Your task to perform on an android device: Check my email Image 0: 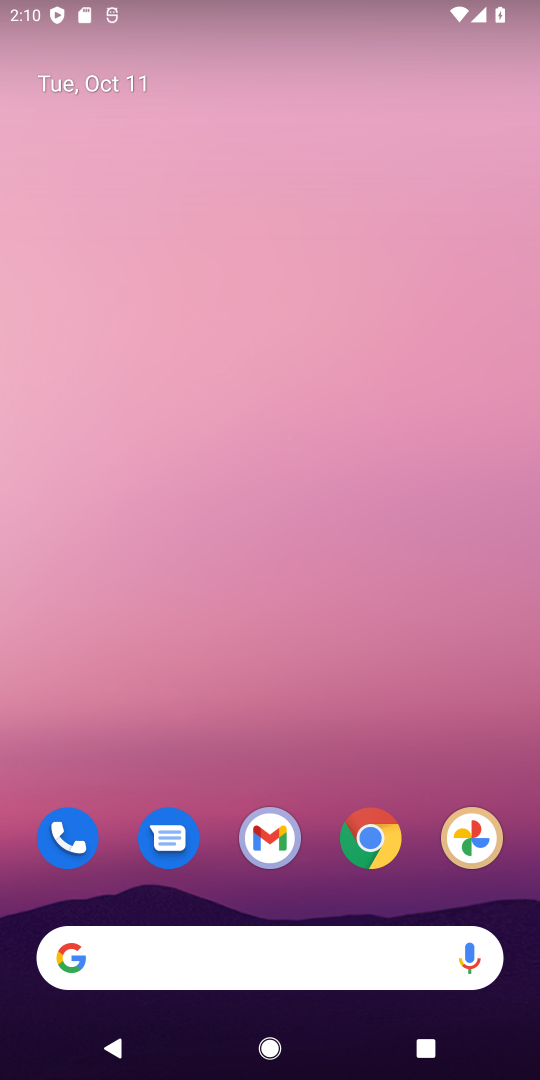
Step 0: click (269, 844)
Your task to perform on an android device: Check my email Image 1: 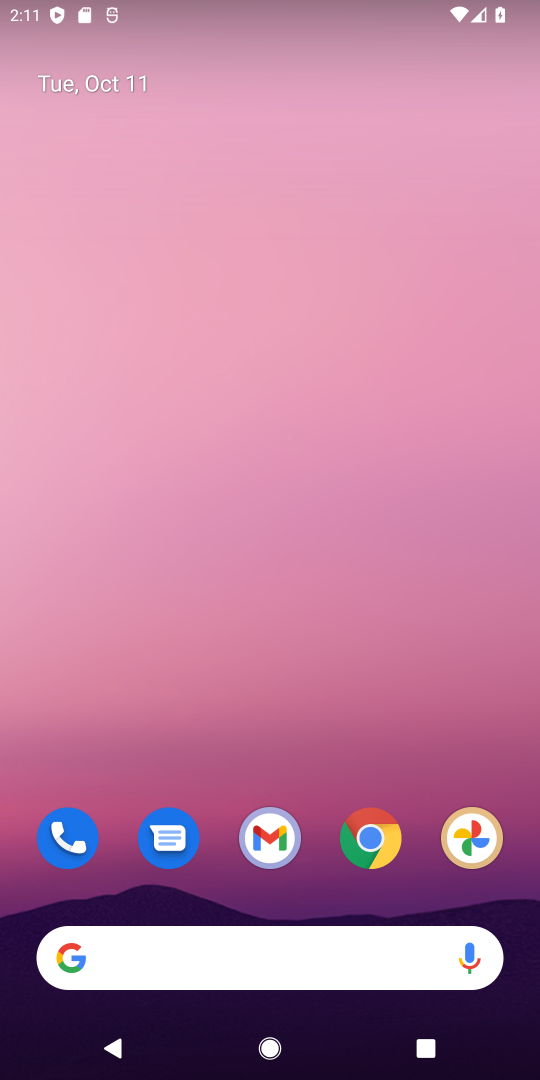
Step 1: click (274, 842)
Your task to perform on an android device: Check my email Image 2: 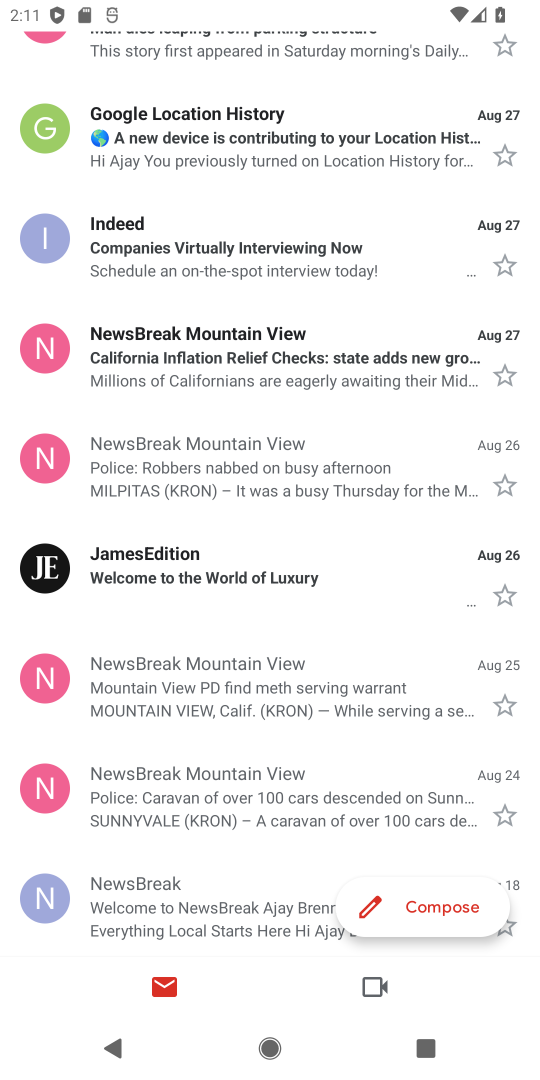
Step 2: drag from (212, 830) to (345, 191)
Your task to perform on an android device: Check my email Image 3: 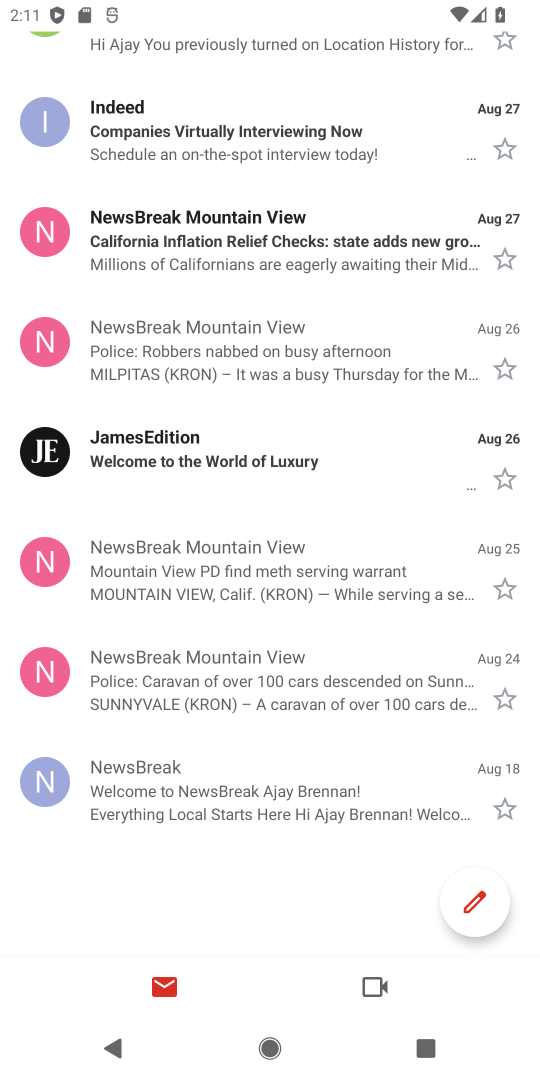
Step 3: drag from (267, 307) to (303, 833)
Your task to perform on an android device: Check my email Image 4: 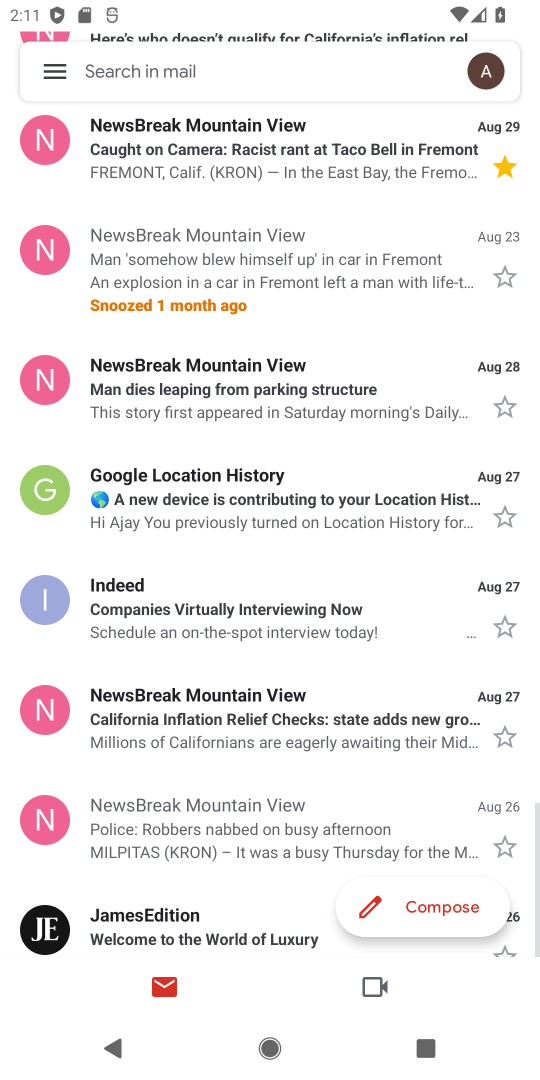
Step 4: drag from (254, 179) to (300, 1032)
Your task to perform on an android device: Check my email Image 5: 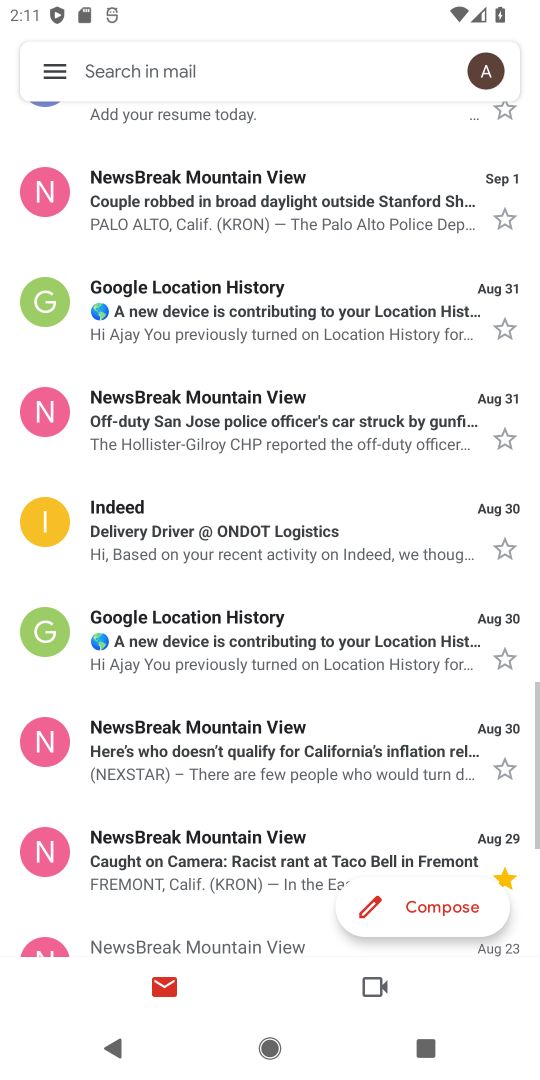
Step 5: drag from (304, 357) to (267, 993)
Your task to perform on an android device: Check my email Image 6: 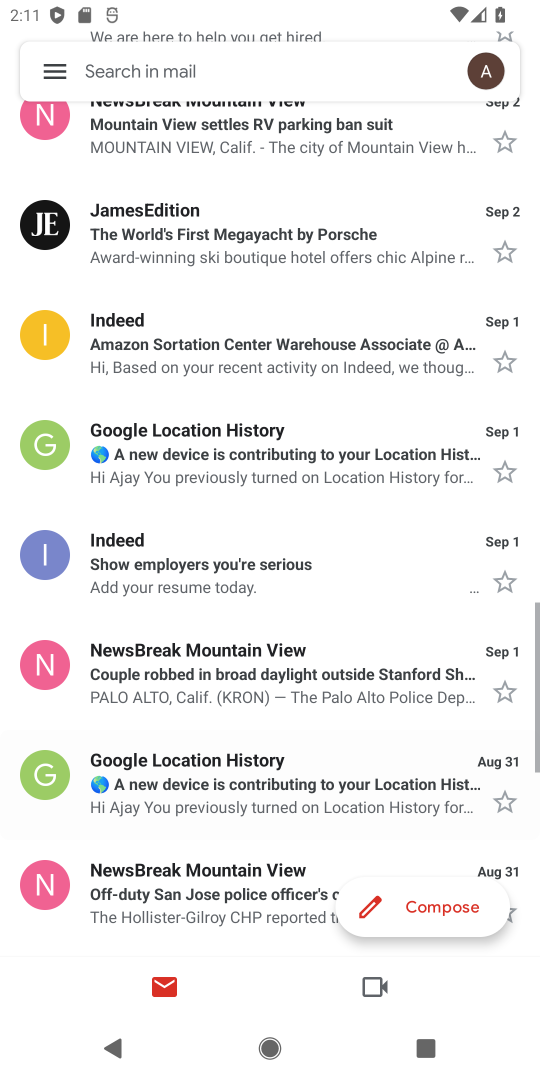
Step 6: drag from (269, 342) to (249, 867)
Your task to perform on an android device: Check my email Image 7: 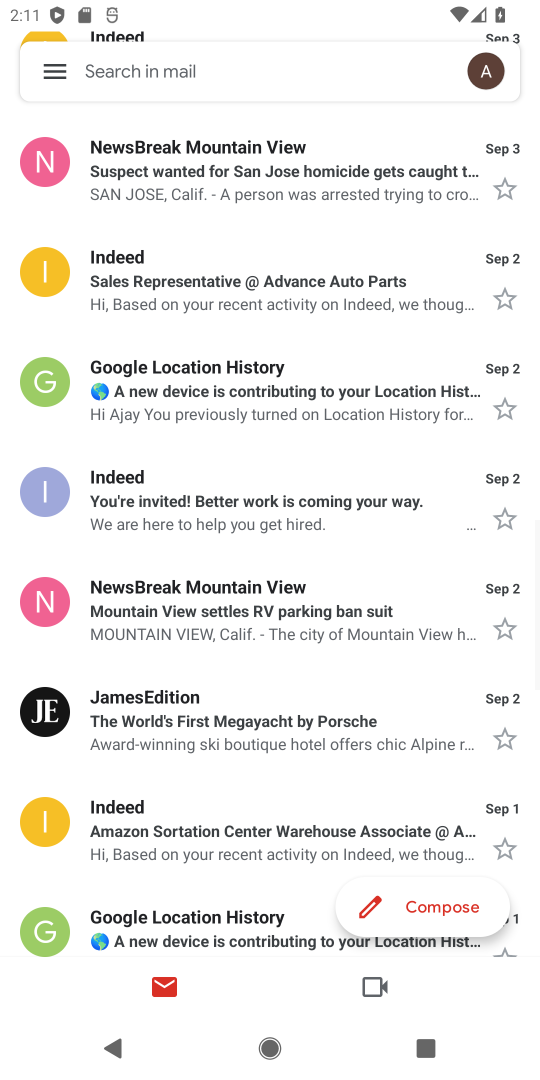
Step 7: drag from (283, 273) to (270, 821)
Your task to perform on an android device: Check my email Image 8: 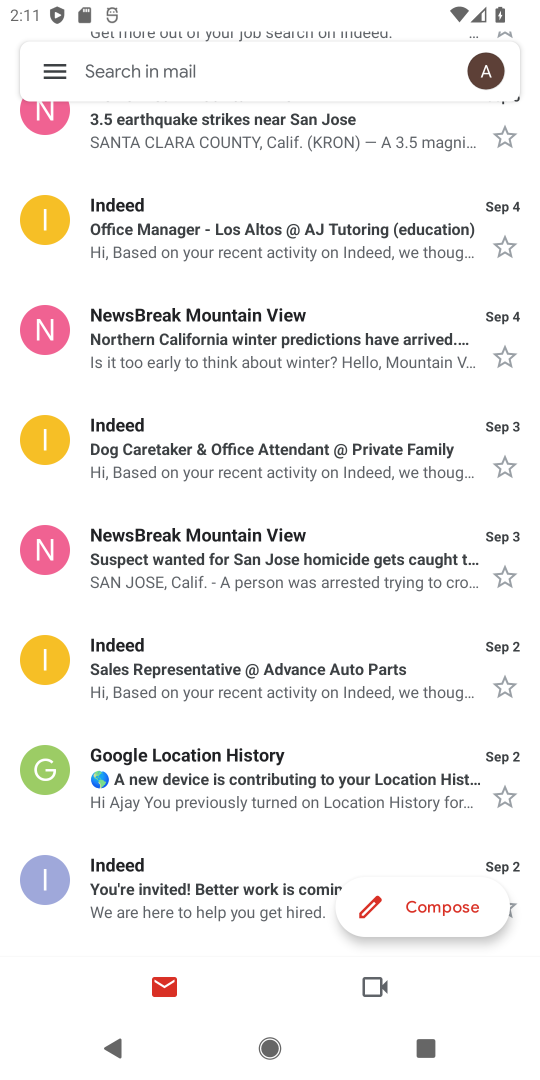
Step 8: drag from (283, 247) to (282, 750)
Your task to perform on an android device: Check my email Image 9: 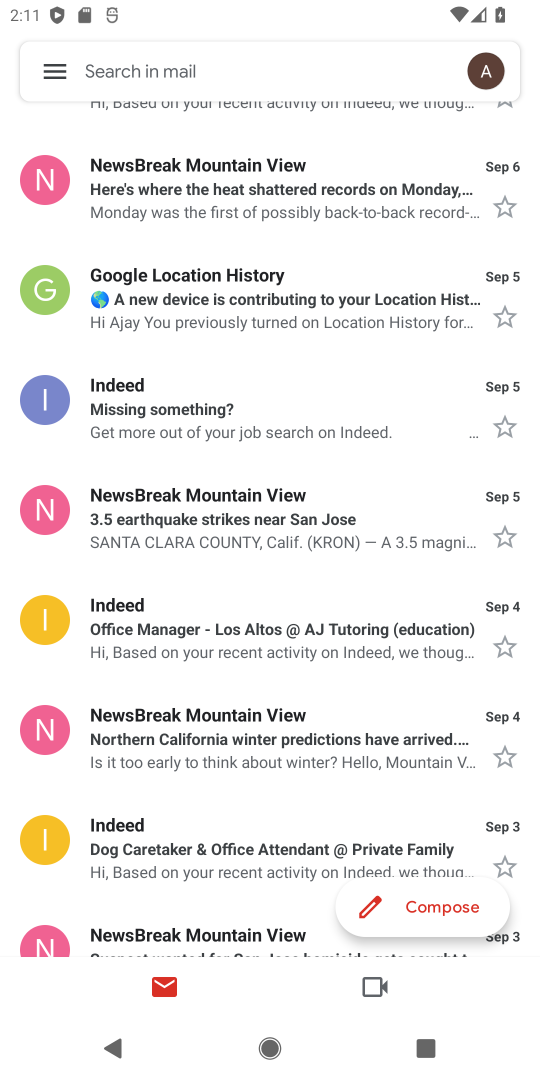
Step 9: drag from (266, 232) to (281, 588)
Your task to perform on an android device: Check my email Image 10: 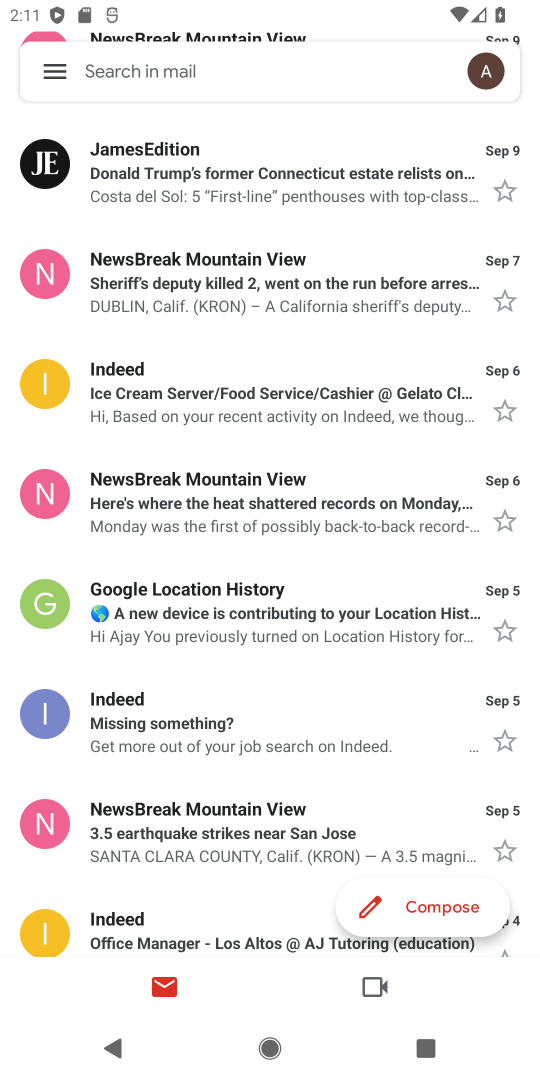
Step 10: drag from (246, 129) to (309, 993)
Your task to perform on an android device: Check my email Image 11: 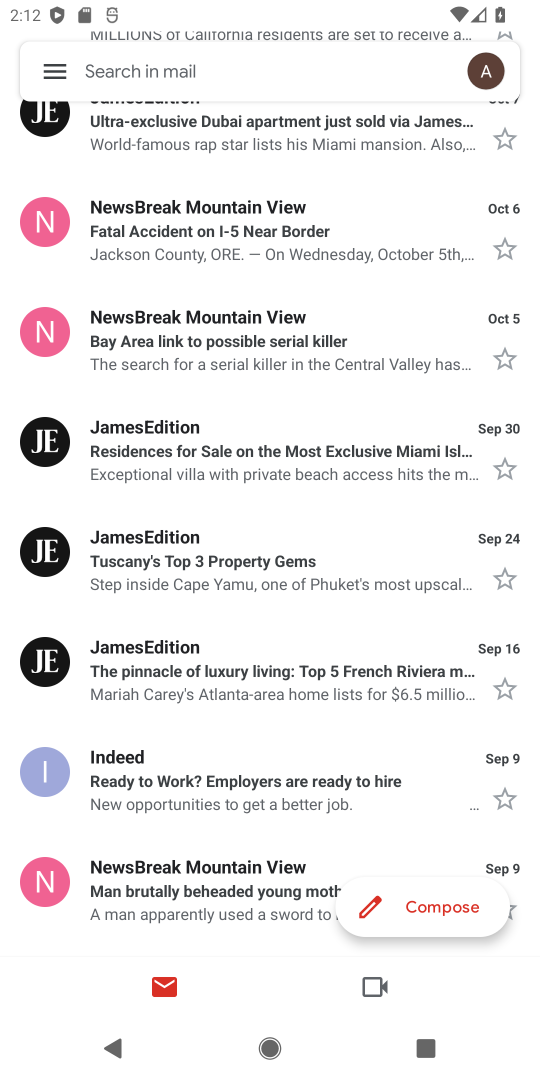
Step 11: drag from (217, 201) to (268, 874)
Your task to perform on an android device: Check my email Image 12: 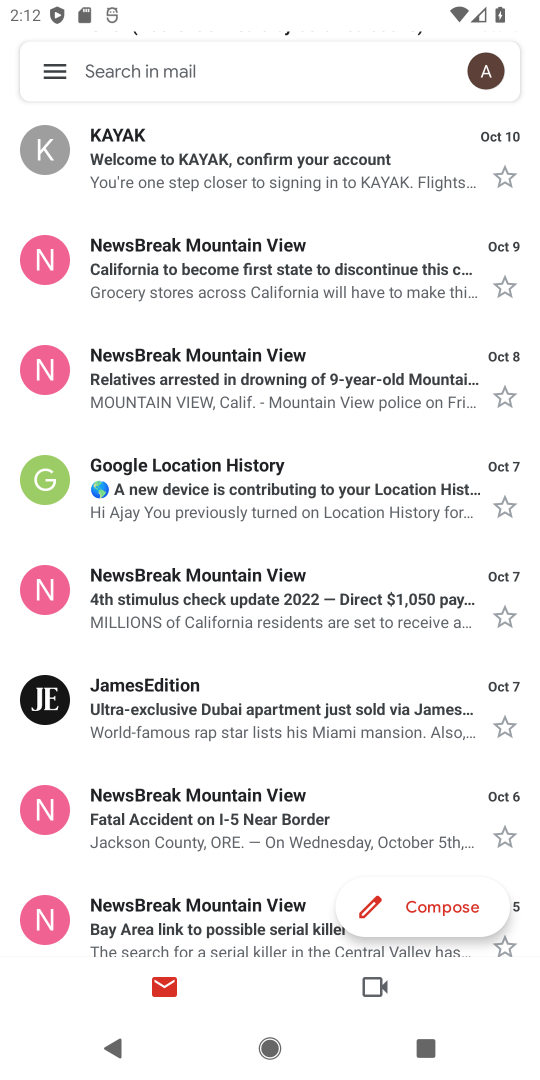
Step 12: drag from (320, 118) to (304, 617)
Your task to perform on an android device: Check my email Image 13: 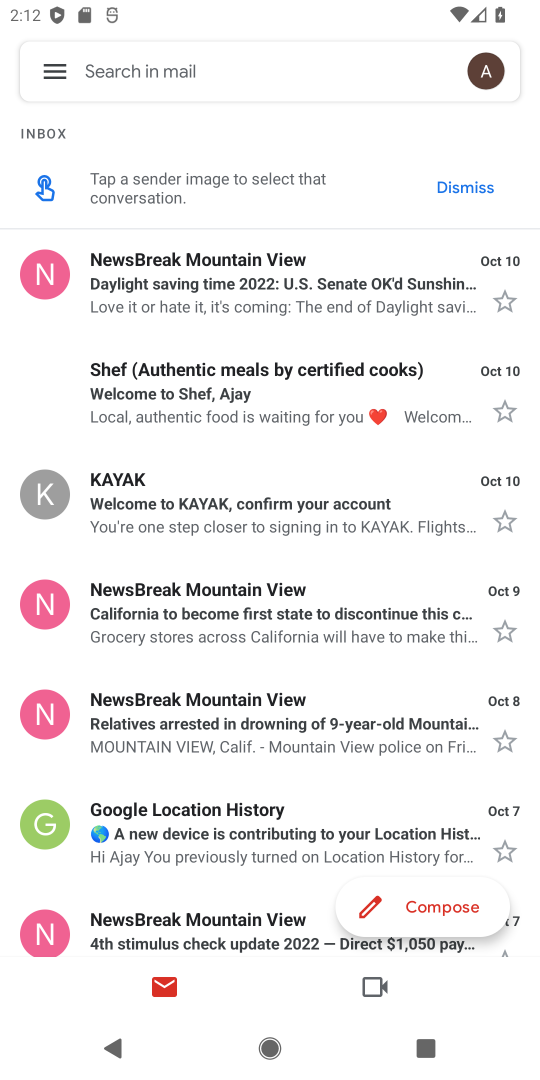
Step 13: drag from (226, 684) to (262, 103)
Your task to perform on an android device: Check my email Image 14: 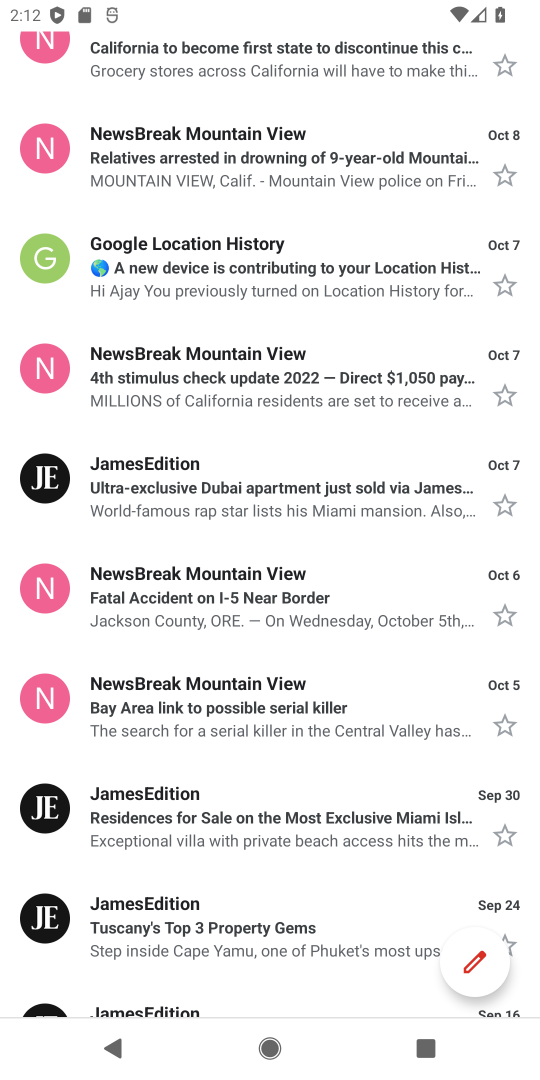
Step 14: drag from (266, 931) to (311, 317)
Your task to perform on an android device: Check my email Image 15: 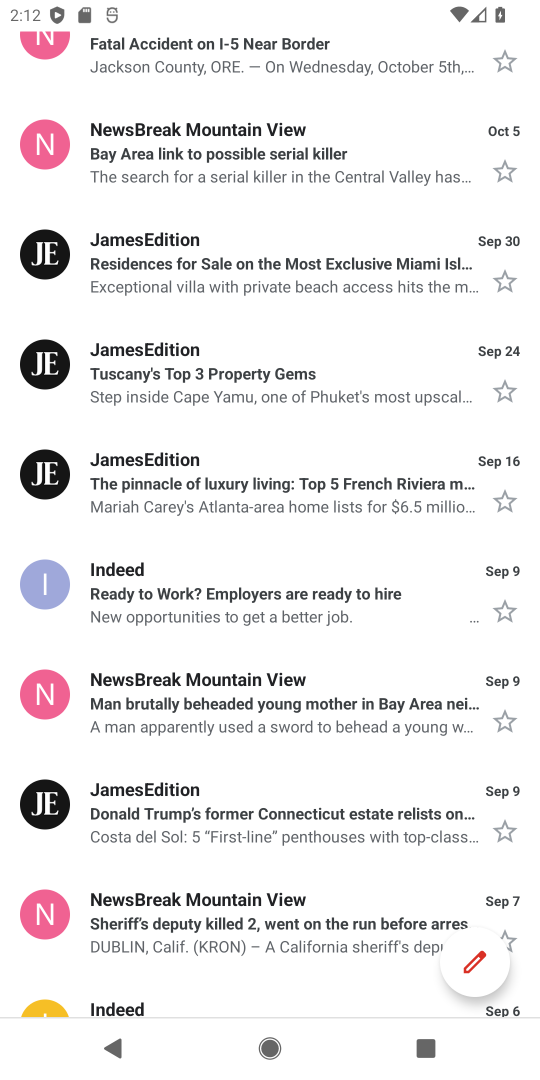
Step 15: drag from (311, 826) to (382, 245)
Your task to perform on an android device: Check my email Image 16: 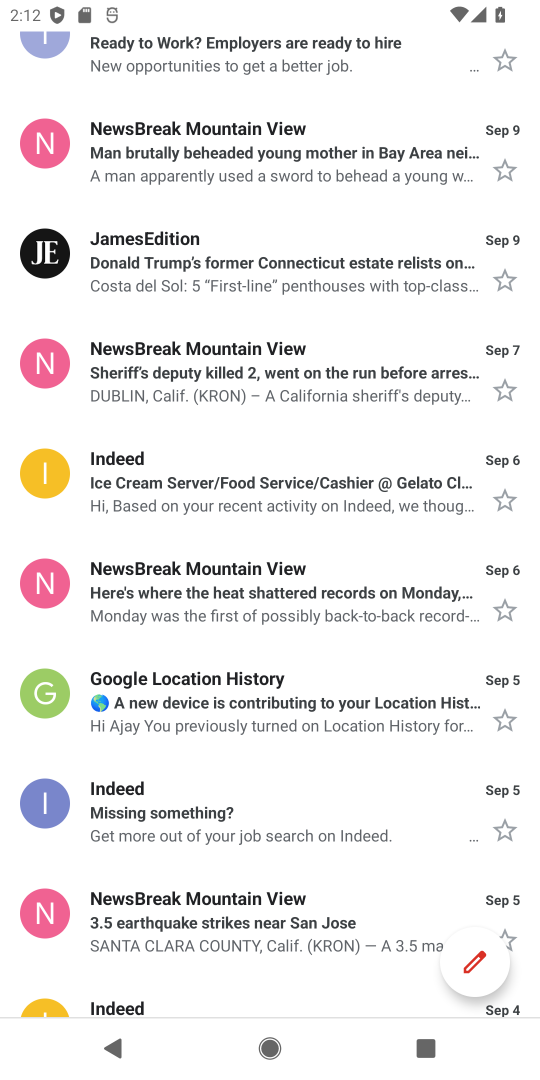
Step 16: drag from (272, 809) to (282, 213)
Your task to perform on an android device: Check my email Image 17: 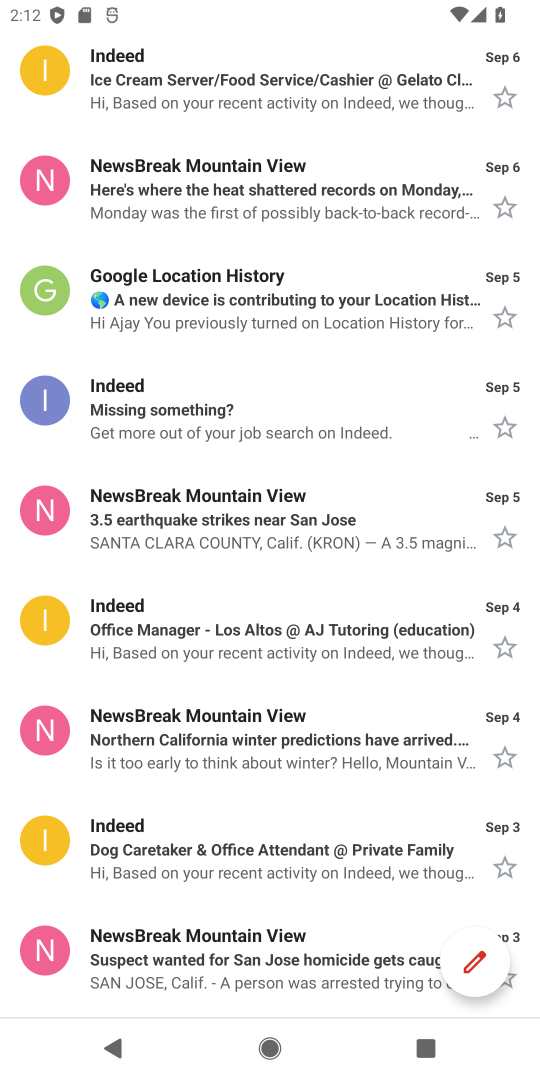
Step 17: drag from (188, 785) to (308, 243)
Your task to perform on an android device: Check my email Image 18: 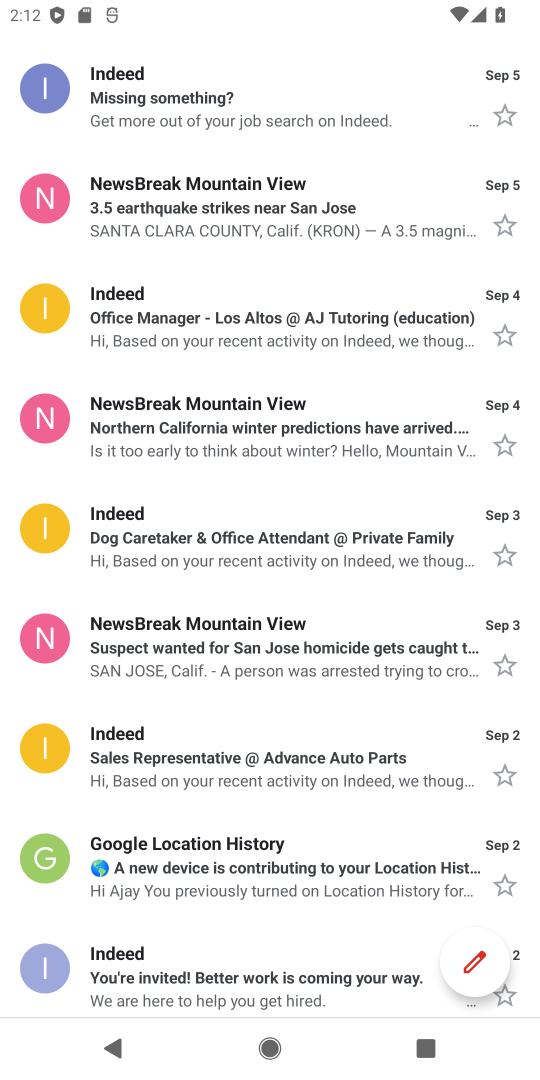
Step 18: click (217, 419)
Your task to perform on an android device: Check my email Image 19: 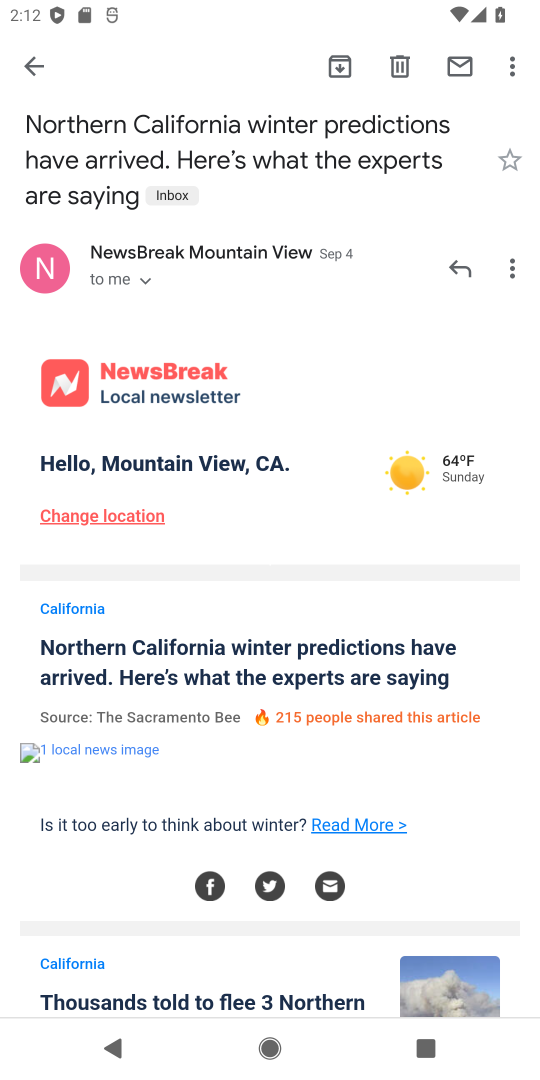
Step 19: task complete